Your task to perform on an android device: snooze an email in the gmail app Image 0: 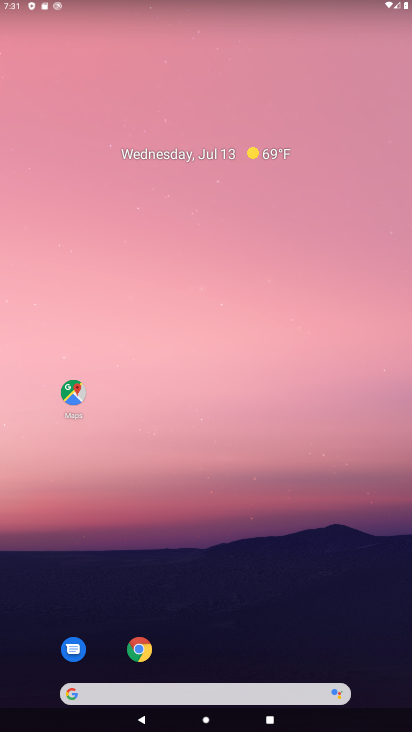
Step 0: drag from (214, 676) to (240, 416)
Your task to perform on an android device: snooze an email in the gmail app Image 1: 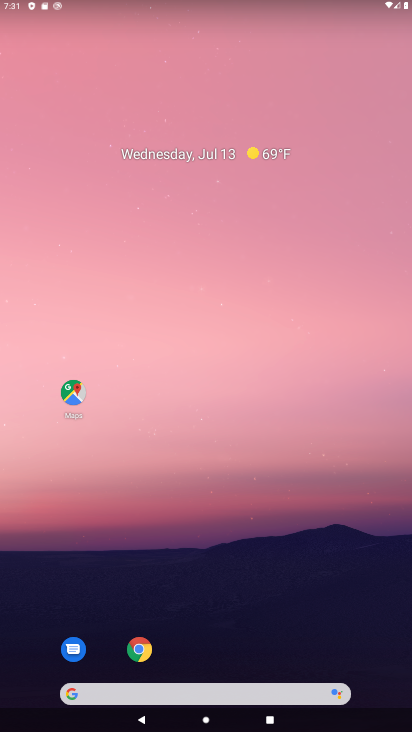
Step 1: drag from (148, 679) to (217, 300)
Your task to perform on an android device: snooze an email in the gmail app Image 2: 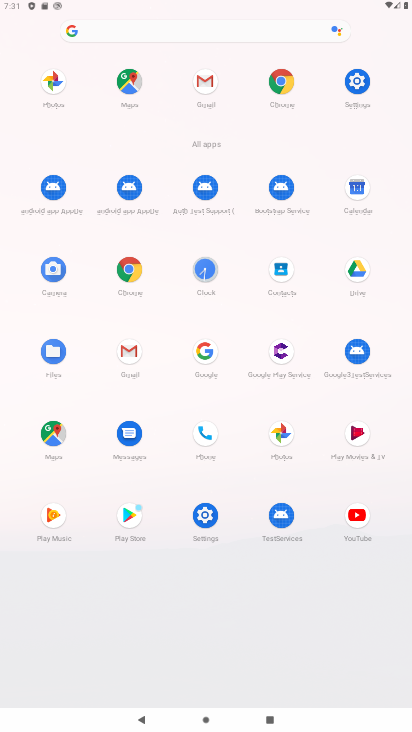
Step 2: click (127, 342)
Your task to perform on an android device: snooze an email in the gmail app Image 3: 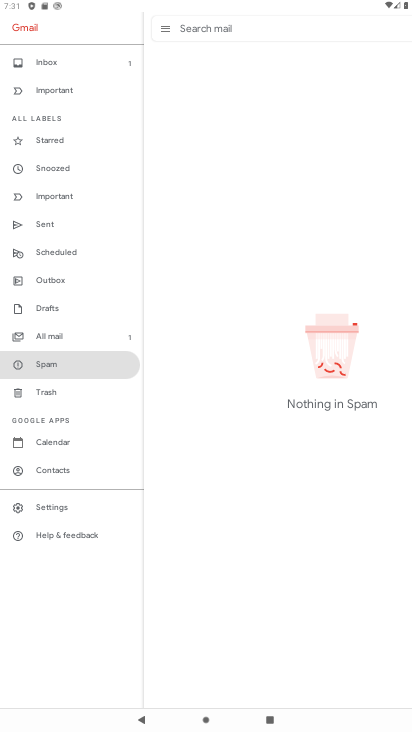
Step 3: click (45, 58)
Your task to perform on an android device: snooze an email in the gmail app Image 4: 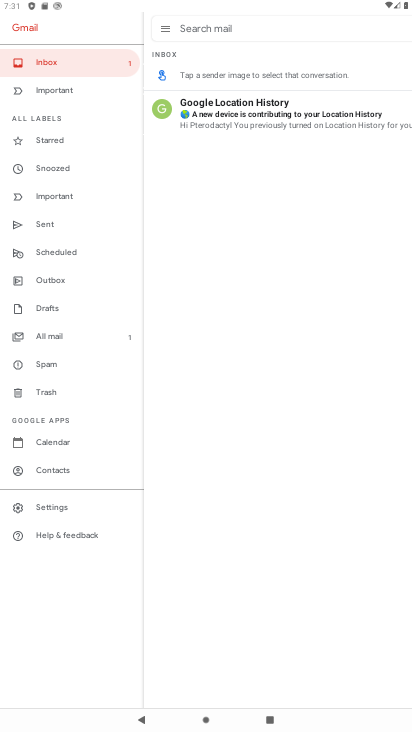
Step 4: click (256, 110)
Your task to perform on an android device: snooze an email in the gmail app Image 5: 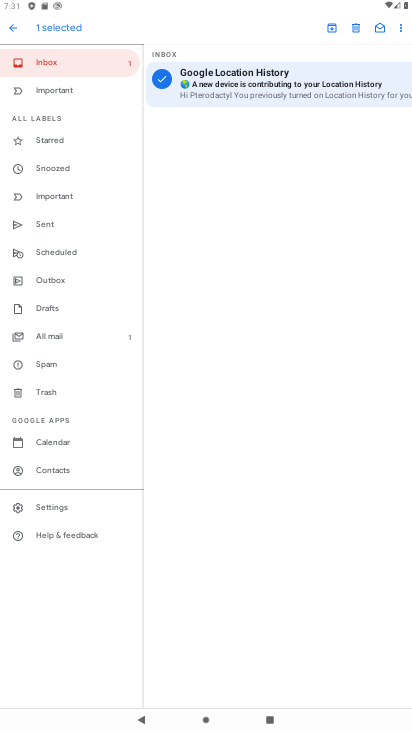
Step 5: click (396, 28)
Your task to perform on an android device: snooze an email in the gmail app Image 6: 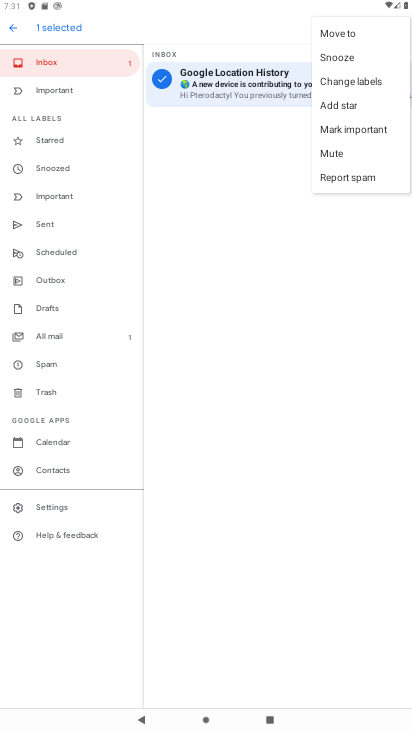
Step 6: click (353, 56)
Your task to perform on an android device: snooze an email in the gmail app Image 7: 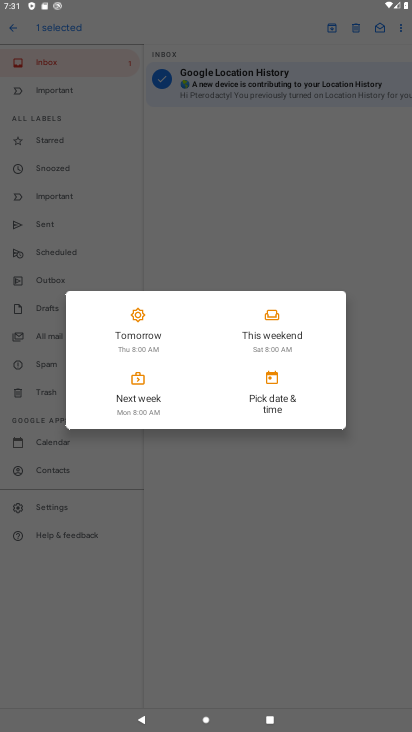
Step 7: click (268, 396)
Your task to perform on an android device: snooze an email in the gmail app Image 8: 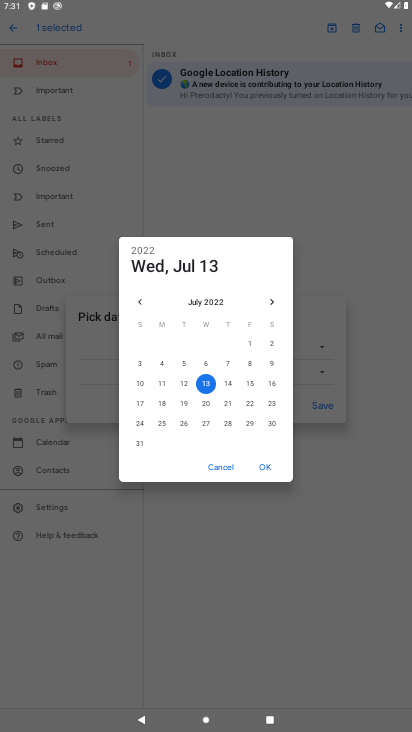
Step 8: click (232, 385)
Your task to perform on an android device: snooze an email in the gmail app Image 9: 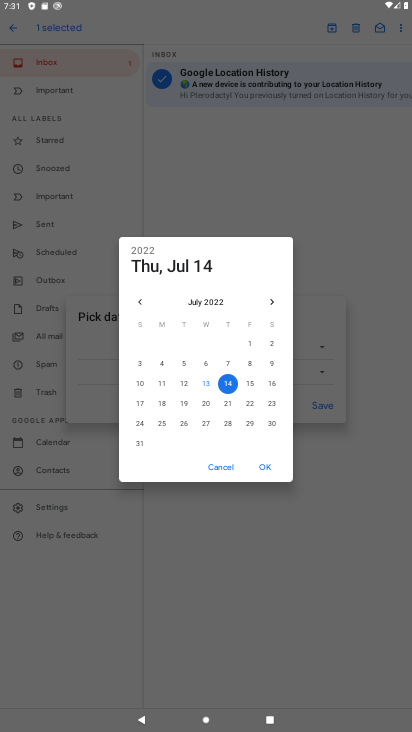
Step 9: click (270, 465)
Your task to perform on an android device: snooze an email in the gmail app Image 10: 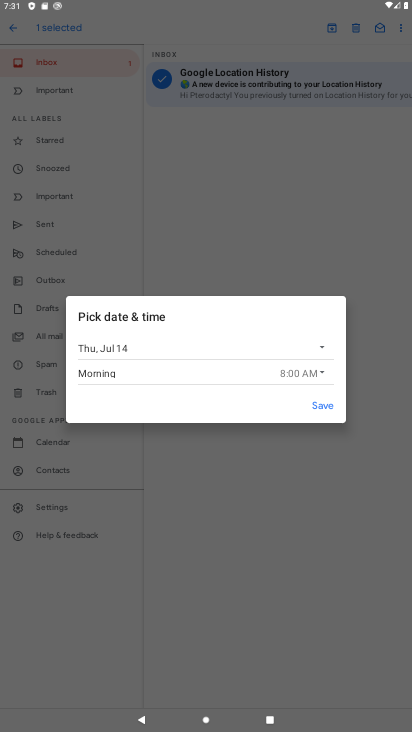
Step 10: click (324, 401)
Your task to perform on an android device: snooze an email in the gmail app Image 11: 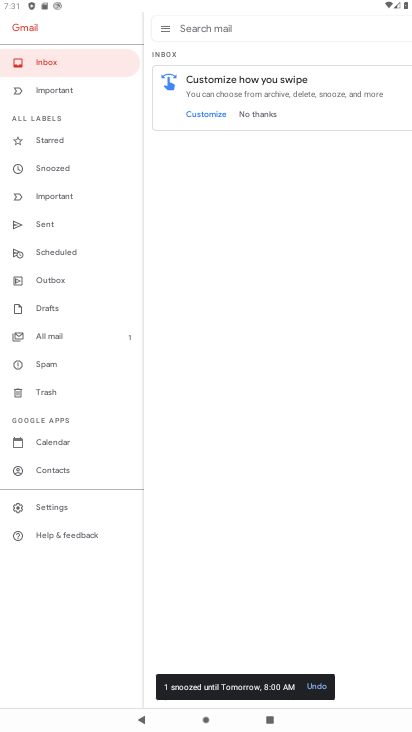
Step 11: task complete